Your task to perform on an android device: allow cookies in the chrome app Image 0: 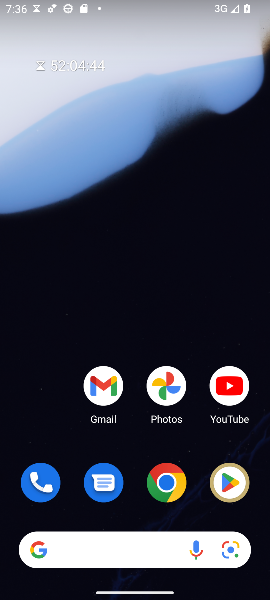
Step 0: drag from (89, 404) to (101, 109)
Your task to perform on an android device: allow cookies in the chrome app Image 1: 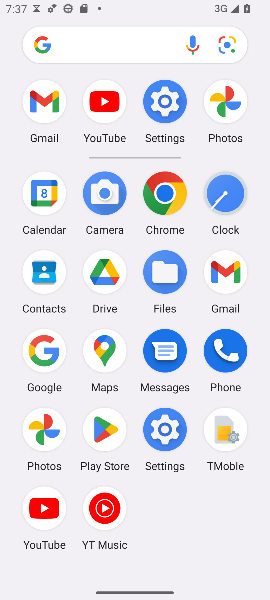
Step 1: click (160, 196)
Your task to perform on an android device: allow cookies in the chrome app Image 2: 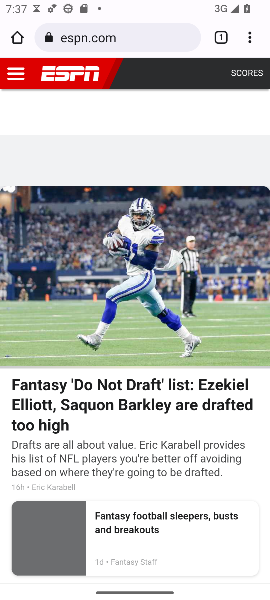
Step 2: drag from (256, 30) to (149, 518)
Your task to perform on an android device: allow cookies in the chrome app Image 3: 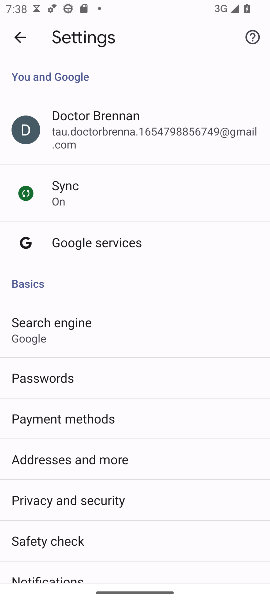
Step 3: drag from (164, 516) to (165, 130)
Your task to perform on an android device: allow cookies in the chrome app Image 4: 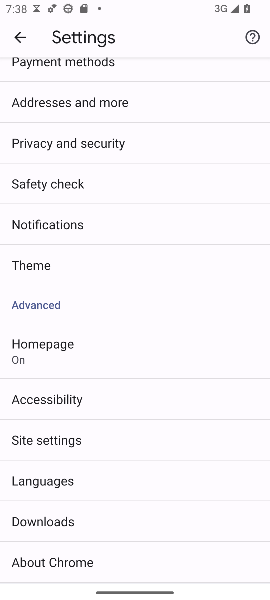
Step 4: click (57, 441)
Your task to perform on an android device: allow cookies in the chrome app Image 5: 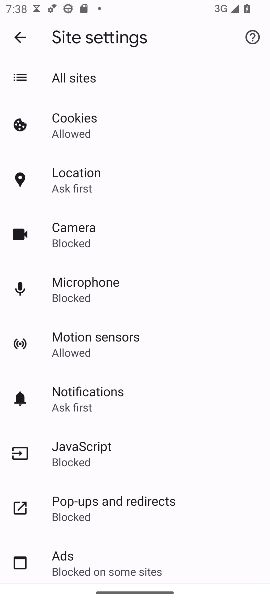
Step 5: click (98, 121)
Your task to perform on an android device: allow cookies in the chrome app Image 6: 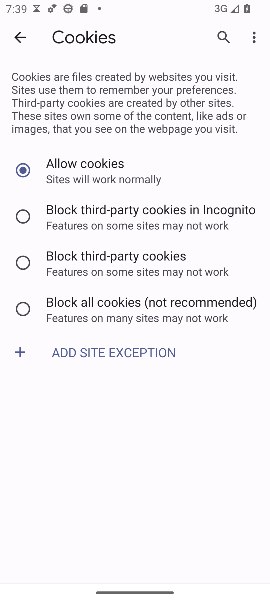
Step 6: task complete